Your task to perform on an android device: Open accessibility settings Image 0: 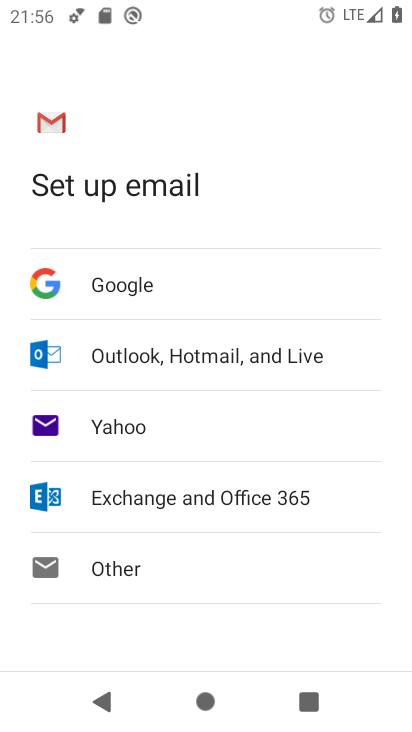
Step 0: press home button
Your task to perform on an android device: Open accessibility settings Image 1: 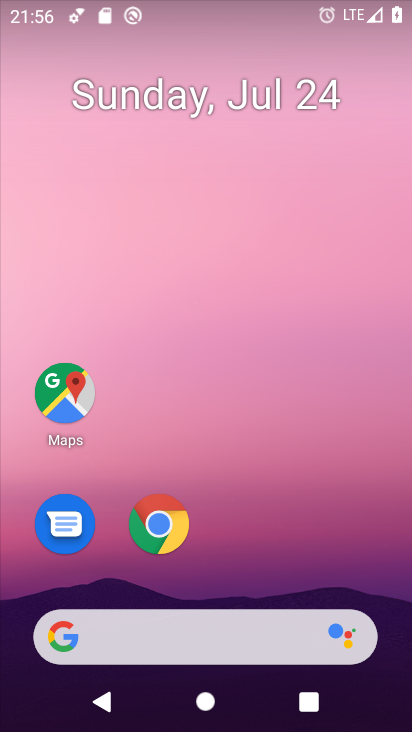
Step 1: drag from (274, 551) to (246, 64)
Your task to perform on an android device: Open accessibility settings Image 2: 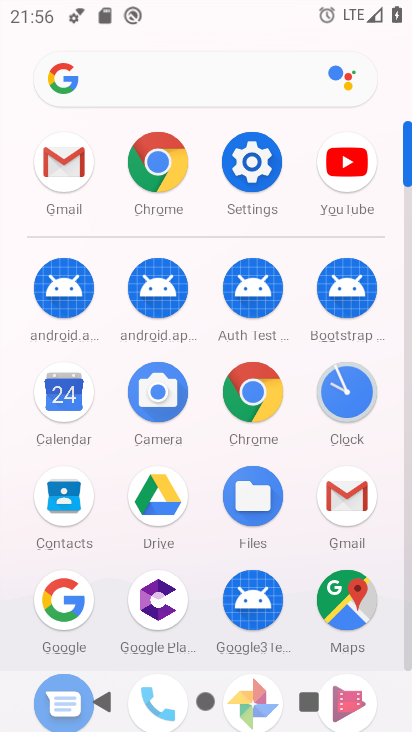
Step 2: click (242, 170)
Your task to perform on an android device: Open accessibility settings Image 3: 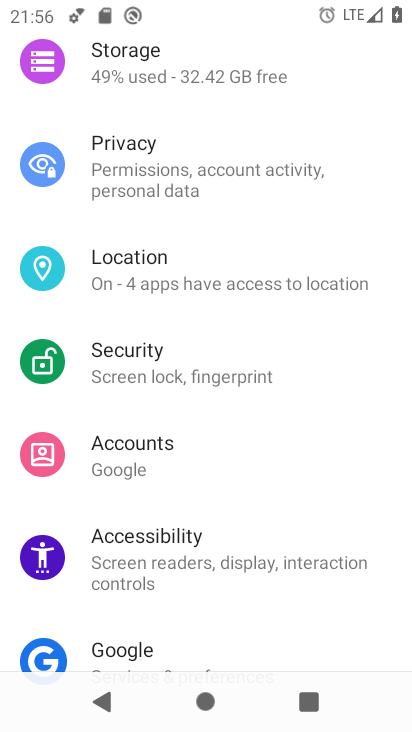
Step 3: click (180, 541)
Your task to perform on an android device: Open accessibility settings Image 4: 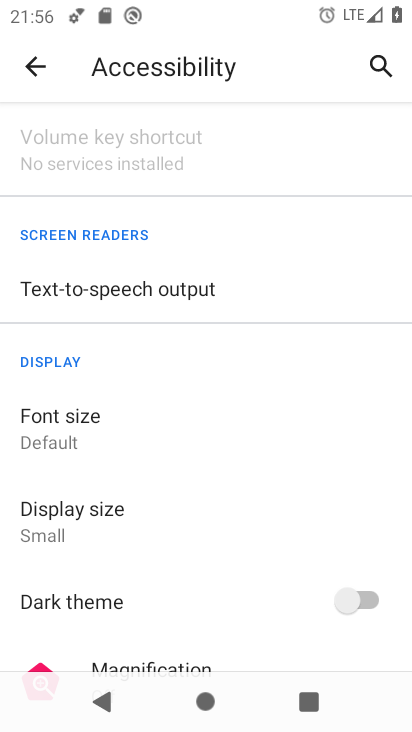
Step 4: task complete